Your task to perform on an android device: toggle notification dots Image 0: 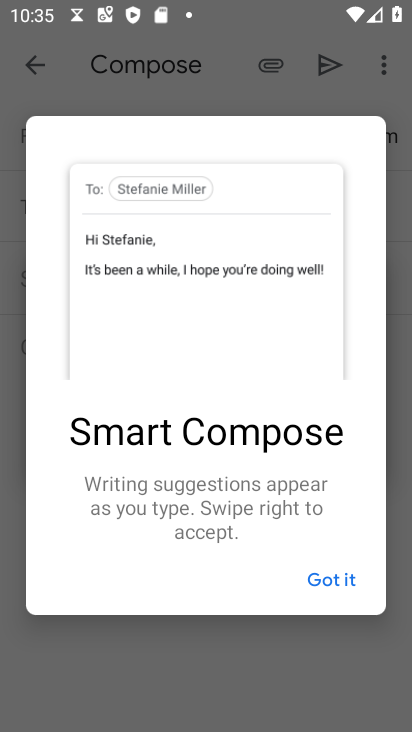
Step 0: press home button
Your task to perform on an android device: toggle notification dots Image 1: 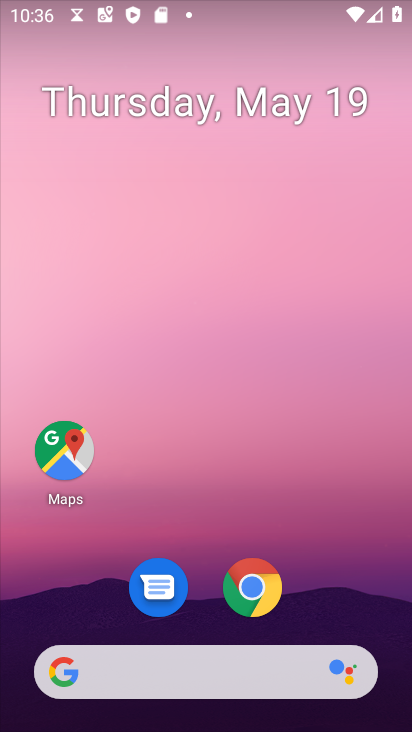
Step 1: drag from (244, 666) to (27, 24)
Your task to perform on an android device: toggle notification dots Image 2: 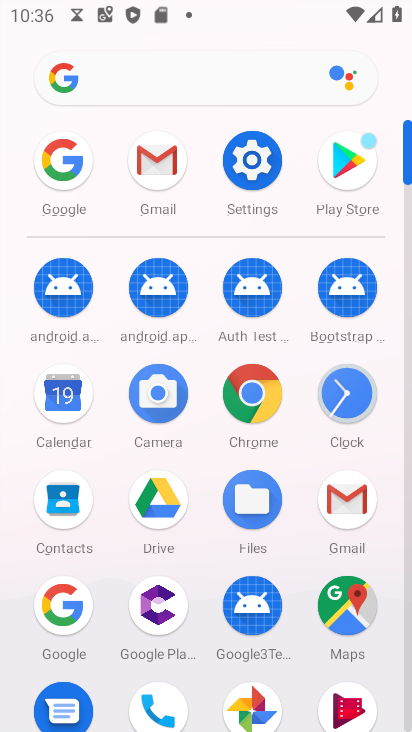
Step 2: click (241, 155)
Your task to perform on an android device: toggle notification dots Image 3: 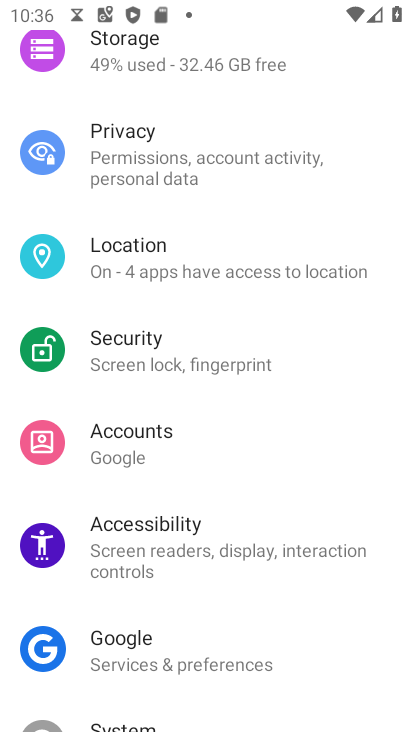
Step 3: drag from (192, 511) to (50, 1)
Your task to perform on an android device: toggle notification dots Image 4: 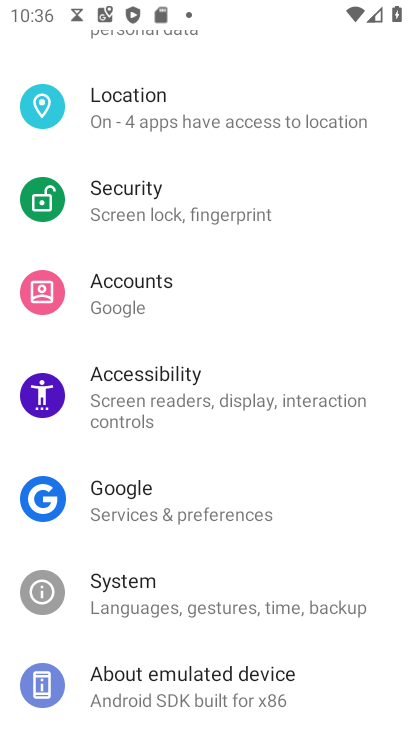
Step 4: drag from (140, 212) to (25, 718)
Your task to perform on an android device: toggle notification dots Image 5: 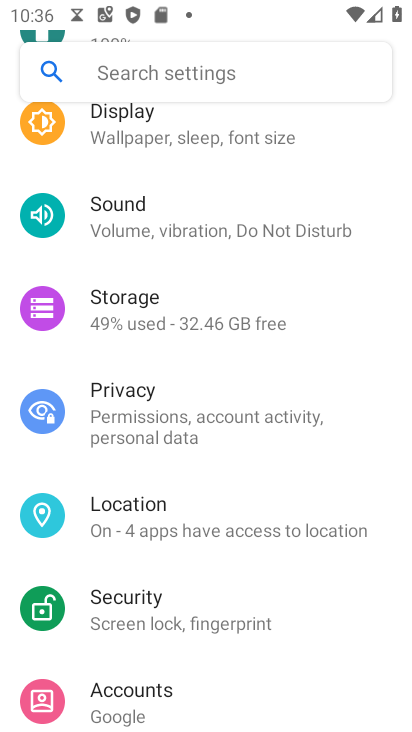
Step 5: drag from (238, 178) to (182, 540)
Your task to perform on an android device: toggle notification dots Image 6: 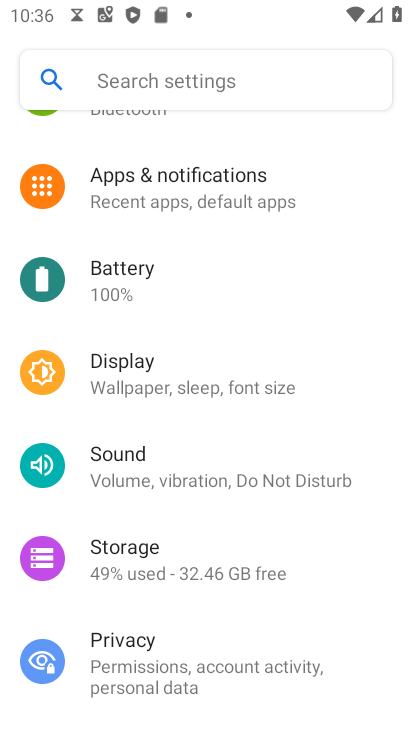
Step 6: click (115, 193)
Your task to perform on an android device: toggle notification dots Image 7: 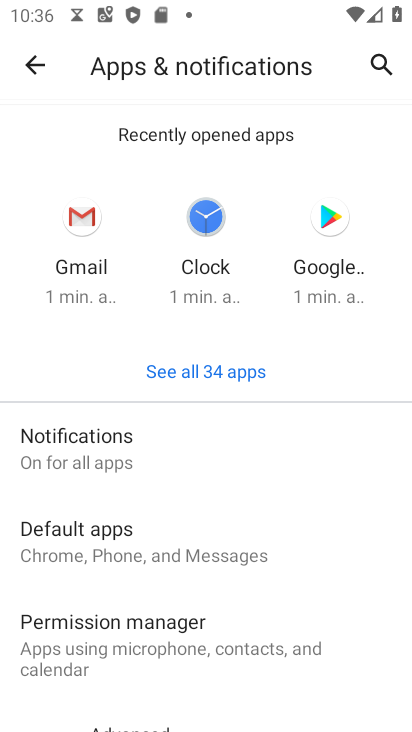
Step 7: click (92, 450)
Your task to perform on an android device: toggle notification dots Image 8: 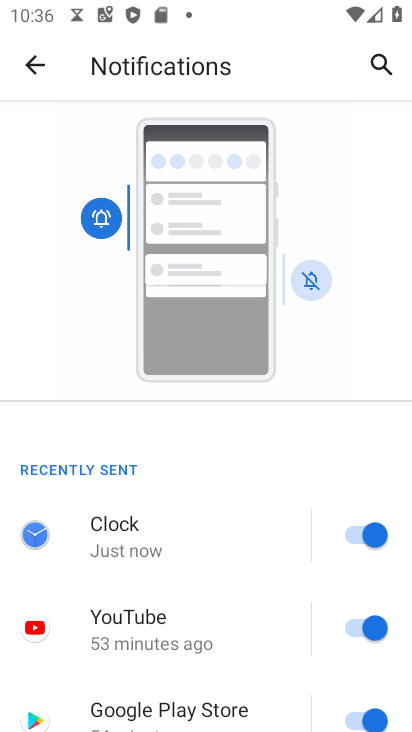
Step 8: drag from (224, 661) to (192, 104)
Your task to perform on an android device: toggle notification dots Image 9: 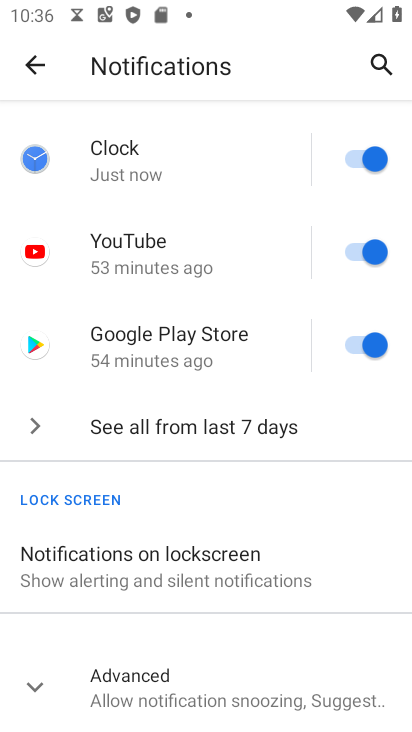
Step 9: click (151, 678)
Your task to perform on an android device: toggle notification dots Image 10: 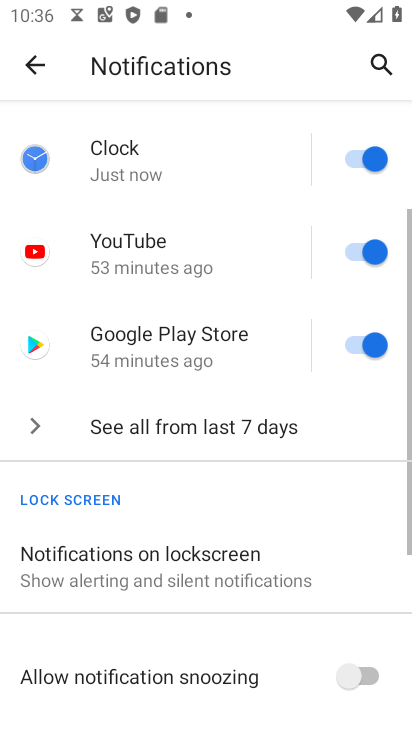
Step 10: drag from (210, 634) to (137, 12)
Your task to perform on an android device: toggle notification dots Image 11: 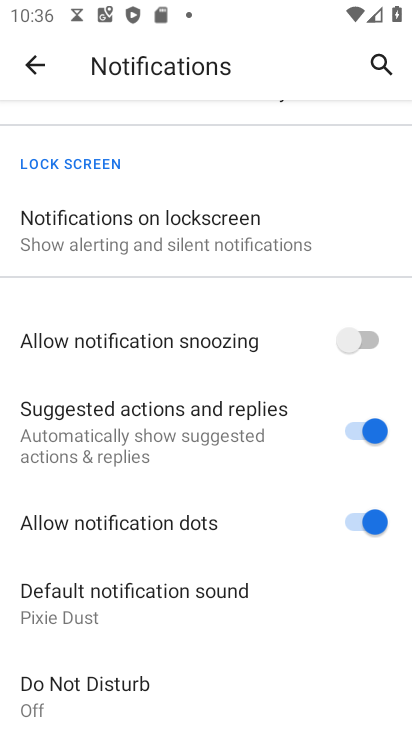
Step 11: click (363, 520)
Your task to perform on an android device: toggle notification dots Image 12: 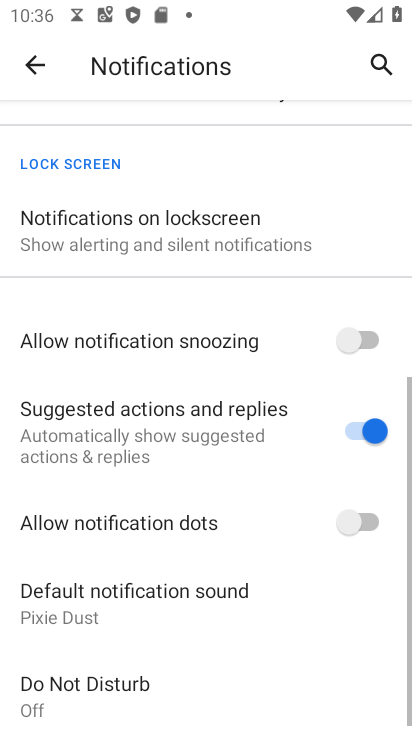
Step 12: task complete